Your task to perform on an android device: turn smart compose on in the gmail app Image 0: 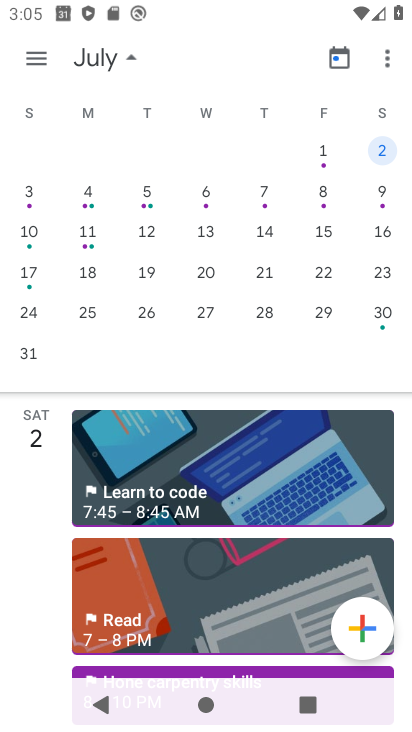
Step 0: press home button
Your task to perform on an android device: turn smart compose on in the gmail app Image 1: 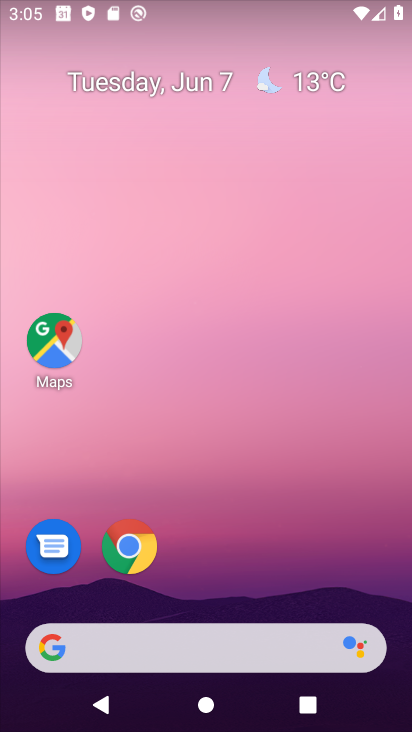
Step 1: drag from (232, 548) to (212, 2)
Your task to perform on an android device: turn smart compose on in the gmail app Image 2: 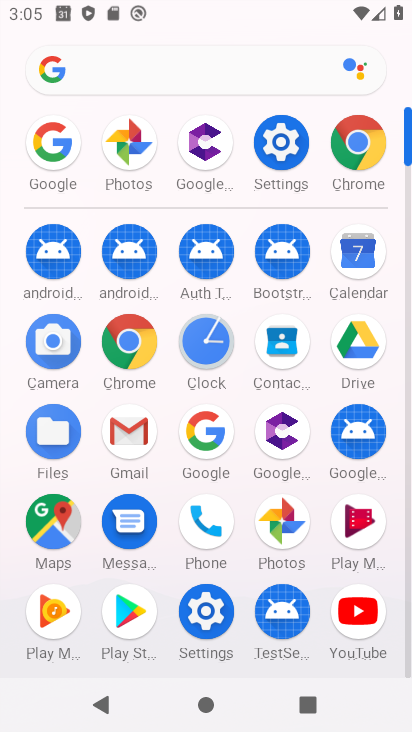
Step 2: click (134, 440)
Your task to perform on an android device: turn smart compose on in the gmail app Image 3: 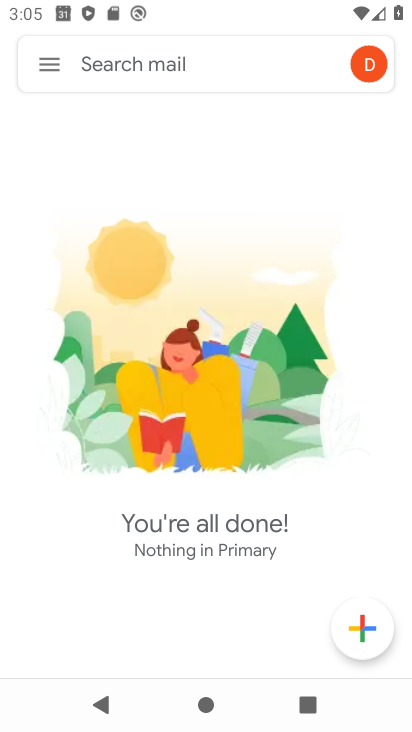
Step 3: click (57, 66)
Your task to perform on an android device: turn smart compose on in the gmail app Image 4: 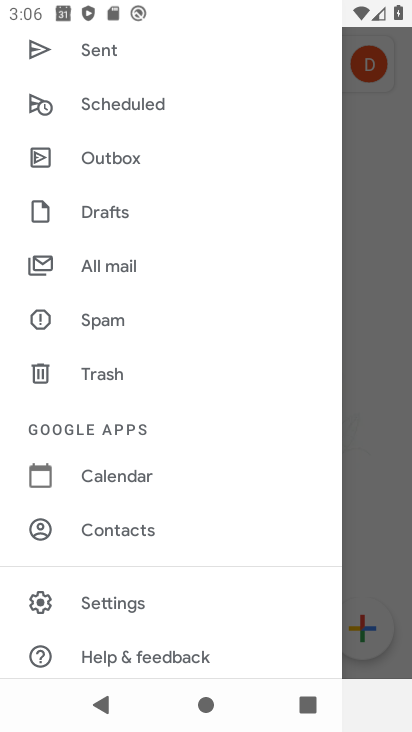
Step 4: click (104, 600)
Your task to perform on an android device: turn smart compose on in the gmail app Image 5: 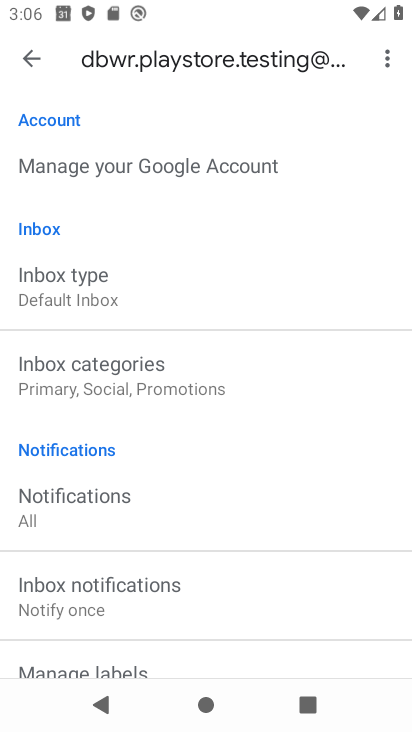
Step 5: task complete